Your task to perform on an android device: open a bookmark in the chrome app Image 0: 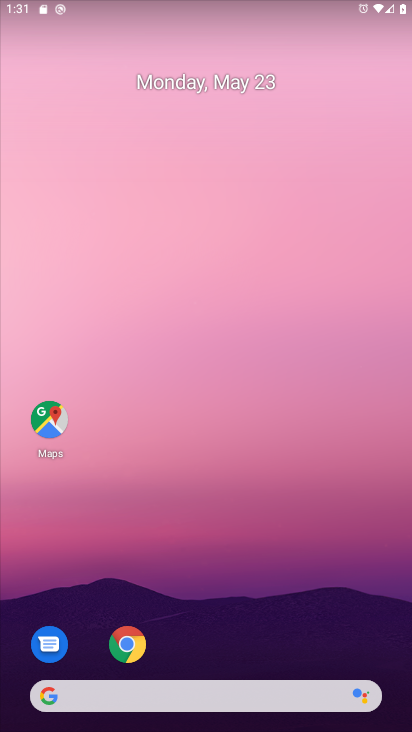
Step 0: click (129, 660)
Your task to perform on an android device: open a bookmark in the chrome app Image 1: 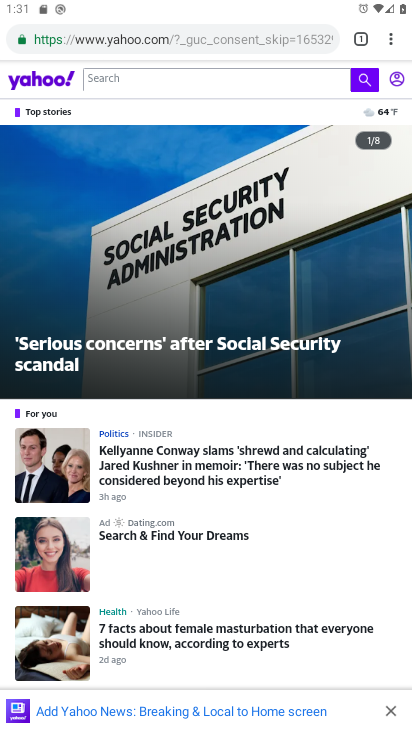
Step 1: click (387, 38)
Your task to perform on an android device: open a bookmark in the chrome app Image 2: 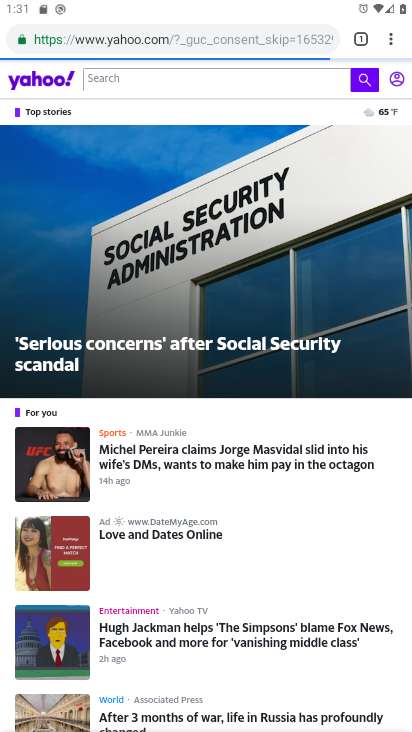
Step 2: click (389, 42)
Your task to perform on an android device: open a bookmark in the chrome app Image 3: 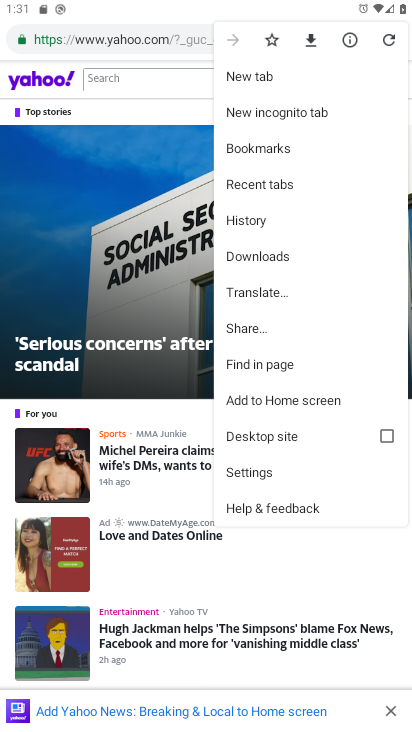
Step 3: click (268, 150)
Your task to perform on an android device: open a bookmark in the chrome app Image 4: 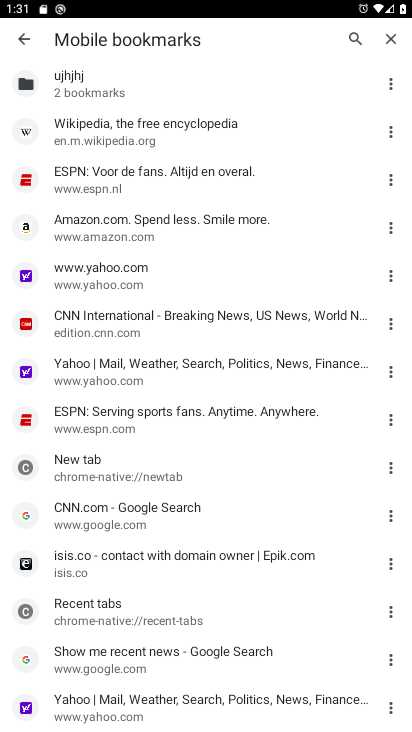
Step 4: click (142, 189)
Your task to perform on an android device: open a bookmark in the chrome app Image 5: 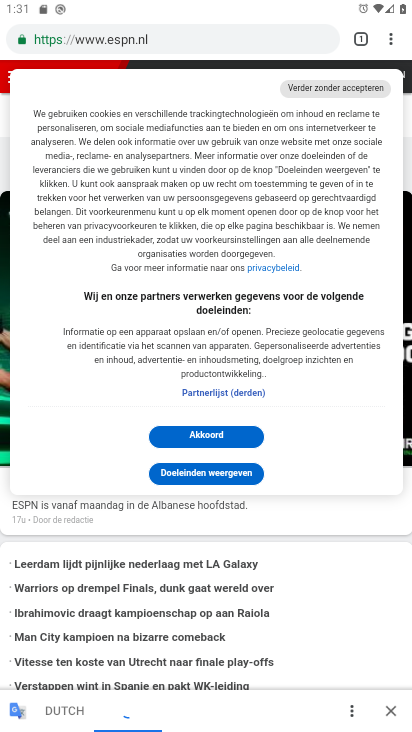
Step 5: task complete